Your task to perform on an android device: See recent photos Image 0: 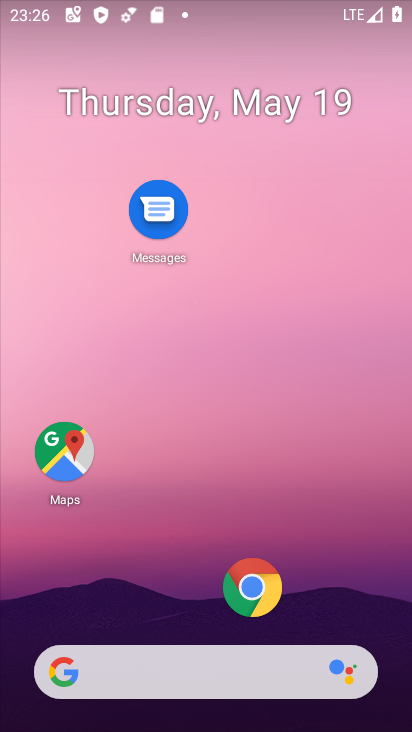
Step 0: drag from (149, 587) to (213, 242)
Your task to perform on an android device: See recent photos Image 1: 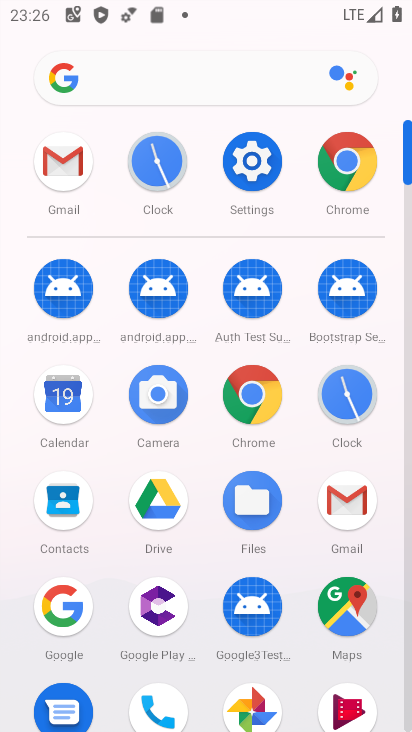
Step 1: click (240, 700)
Your task to perform on an android device: See recent photos Image 2: 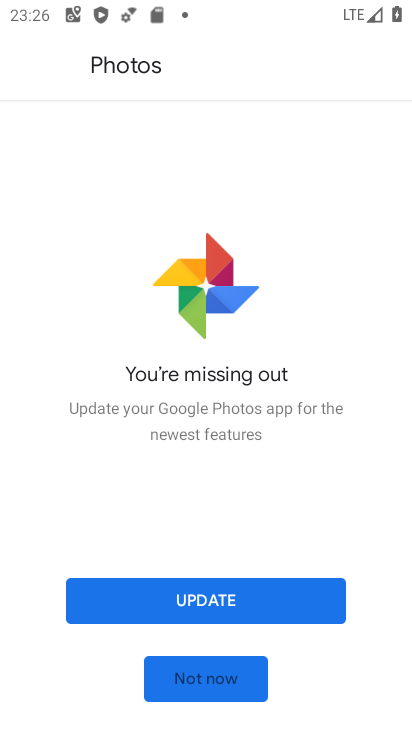
Step 2: click (217, 664)
Your task to perform on an android device: See recent photos Image 3: 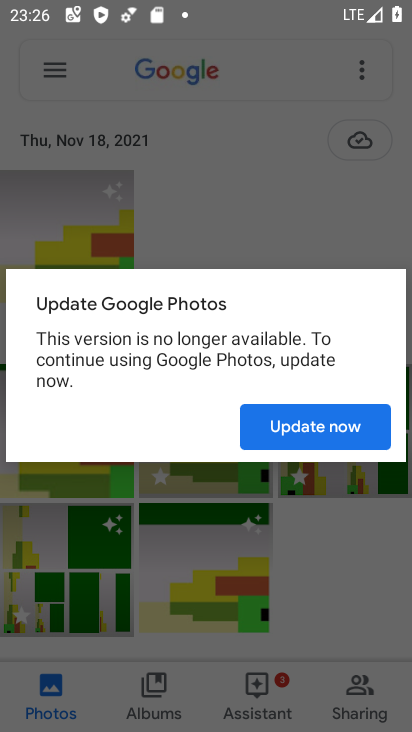
Step 3: click (327, 434)
Your task to perform on an android device: See recent photos Image 4: 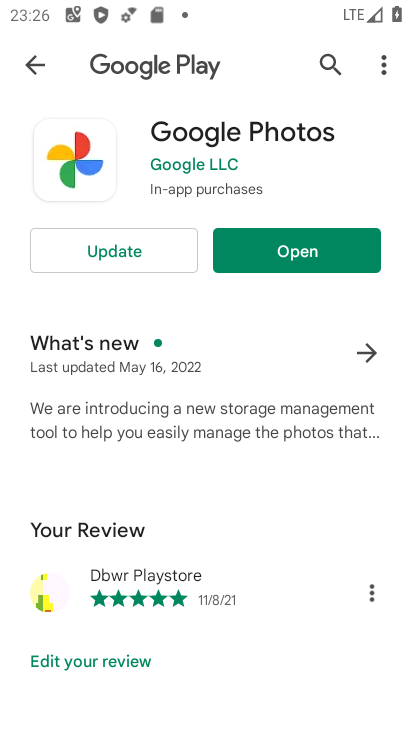
Step 4: click (268, 253)
Your task to perform on an android device: See recent photos Image 5: 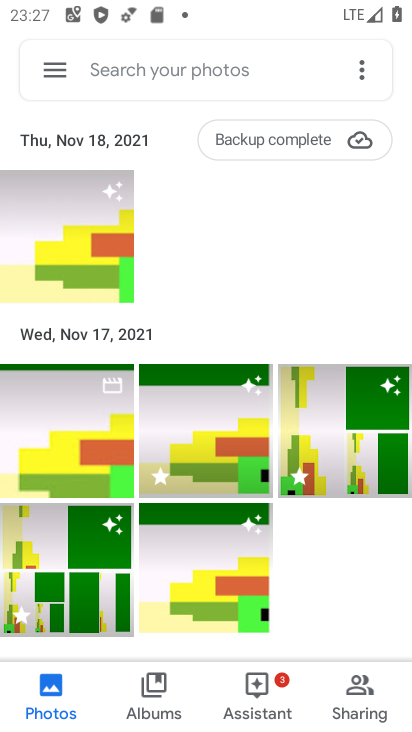
Step 5: task complete